Your task to perform on an android device: turn off priority inbox in the gmail app Image 0: 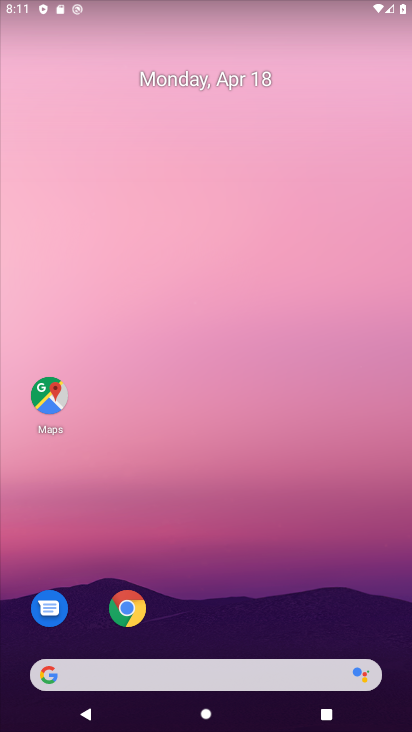
Step 0: drag from (209, 603) to (348, 54)
Your task to perform on an android device: turn off priority inbox in the gmail app Image 1: 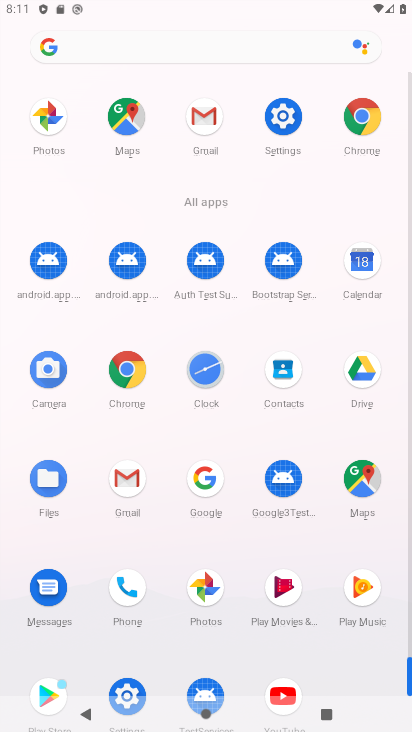
Step 1: click (204, 120)
Your task to perform on an android device: turn off priority inbox in the gmail app Image 2: 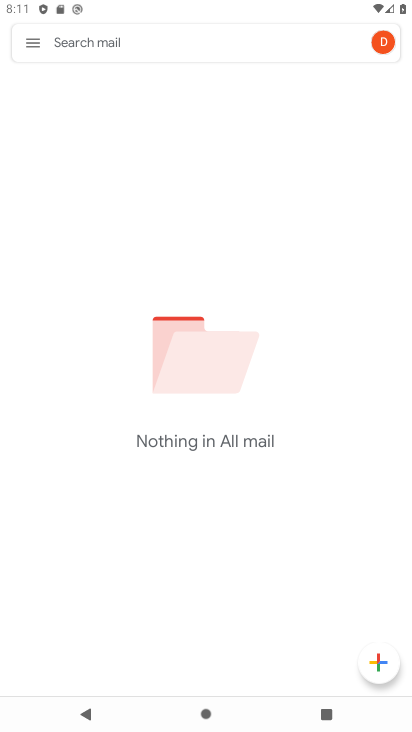
Step 2: click (32, 43)
Your task to perform on an android device: turn off priority inbox in the gmail app Image 3: 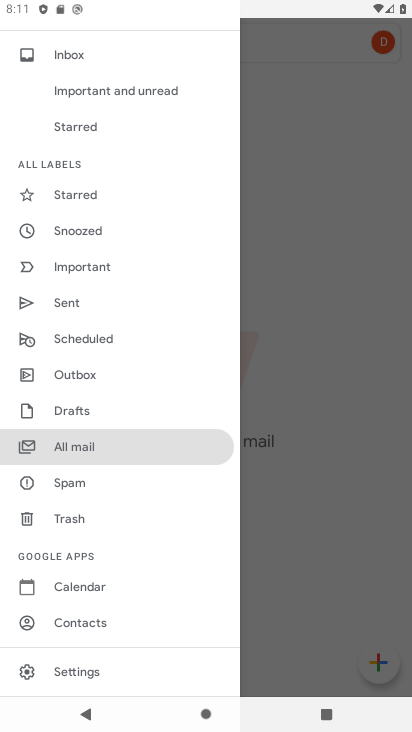
Step 3: click (76, 670)
Your task to perform on an android device: turn off priority inbox in the gmail app Image 4: 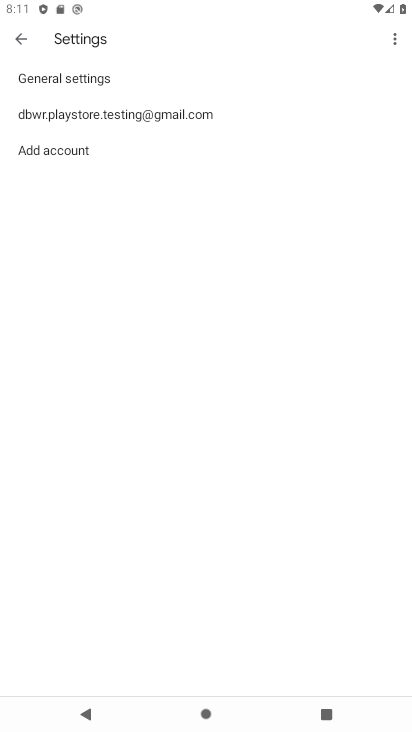
Step 4: click (160, 120)
Your task to perform on an android device: turn off priority inbox in the gmail app Image 5: 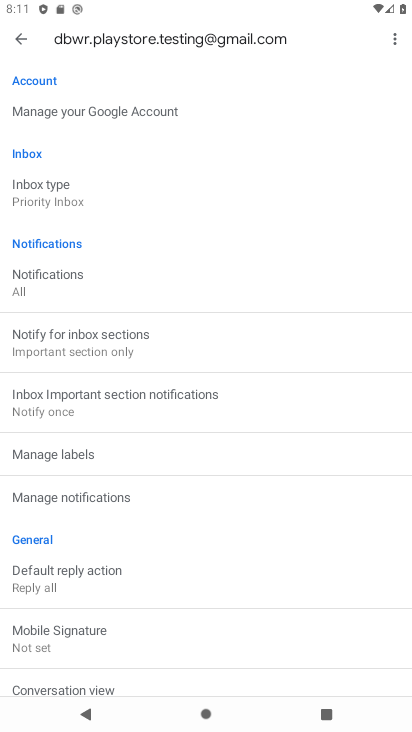
Step 5: click (69, 203)
Your task to perform on an android device: turn off priority inbox in the gmail app Image 6: 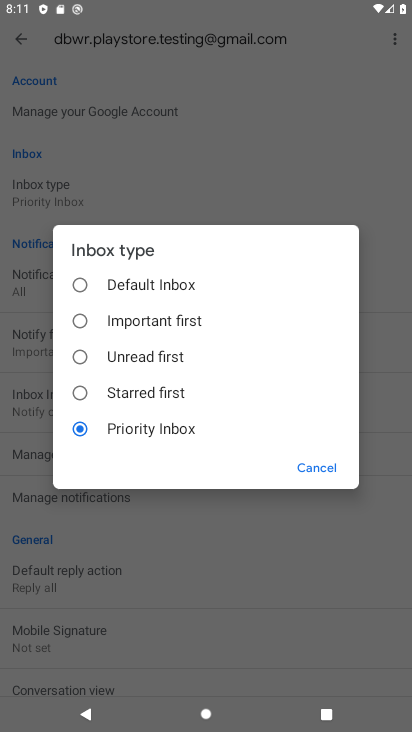
Step 6: click (76, 282)
Your task to perform on an android device: turn off priority inbox in the gmail app Image 7: 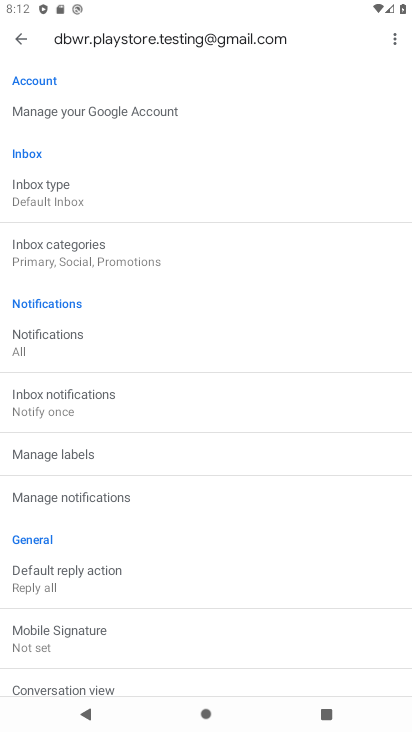
Step 7: task complete